Your task to perform on an android device: toggle notification dots Image 0: 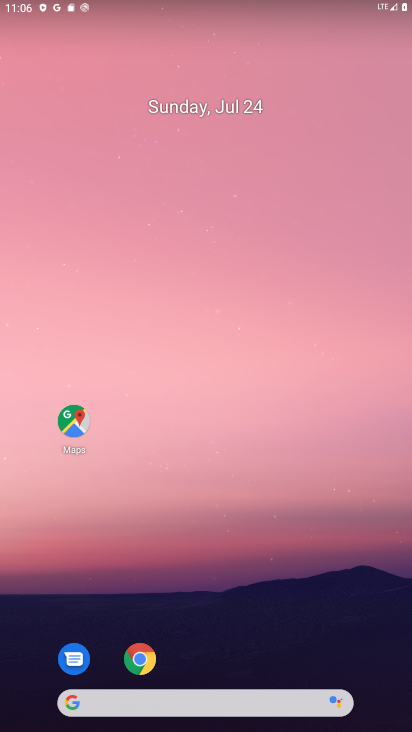
Step 0: drag from (232, 666) to (185, 115)
Your task to perform on an android device: toggle notification dots Image 1: 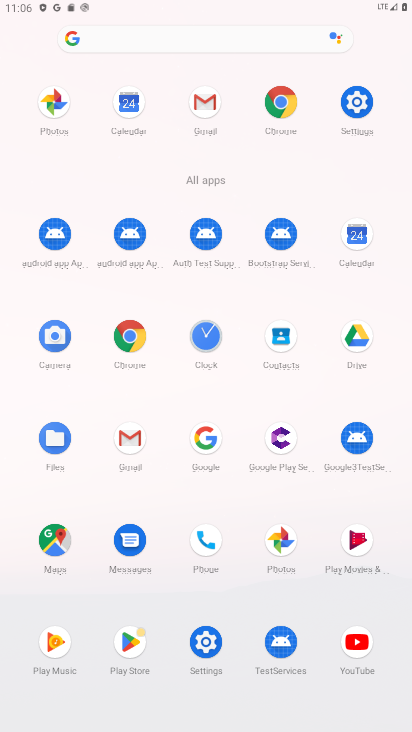
Step 1: click (364, 102)
Your task to perform on an android device: toggle notification dots Image 2: 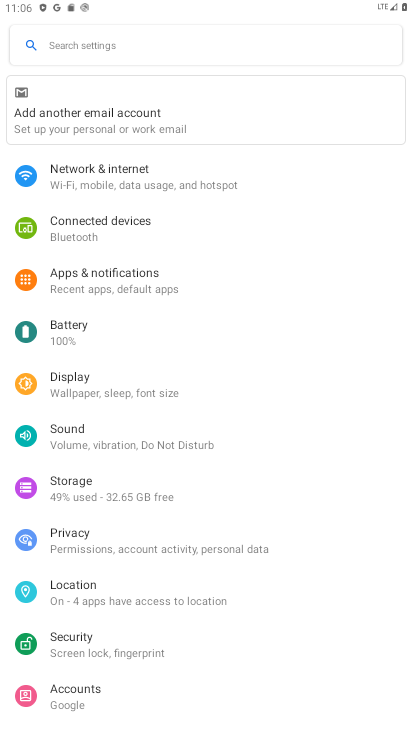
Step 2: click (126, 284)
Your task to perform on an android device: toggle notification dots Image 3: 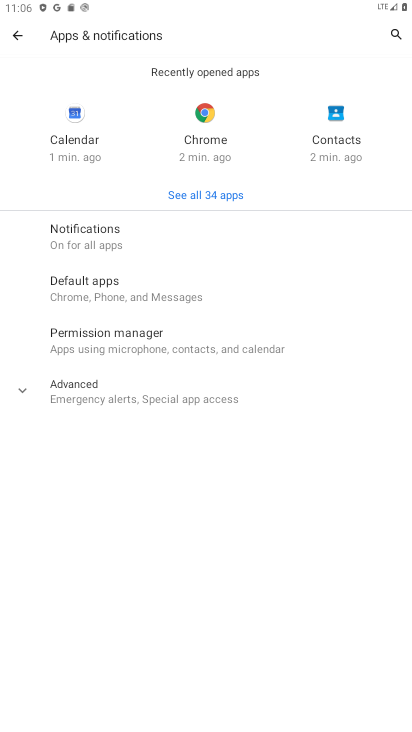
Step 3: click (175, 244)
Your task to perform on an android device: toggle notification dots Image 4: 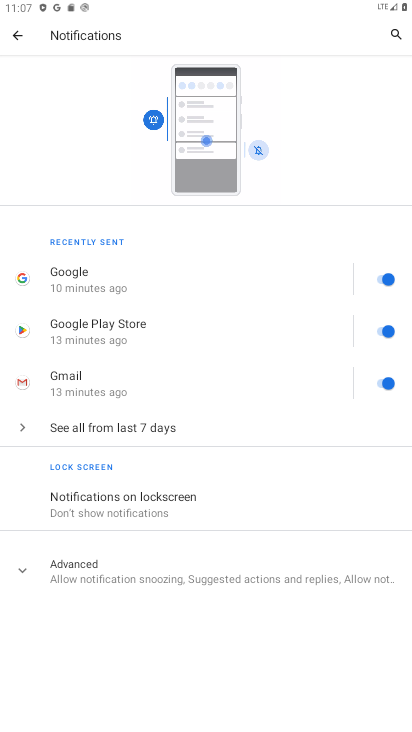
Step 4: click (295, 580)
Your task to perform on an android device: toggle notification dots Image 5: 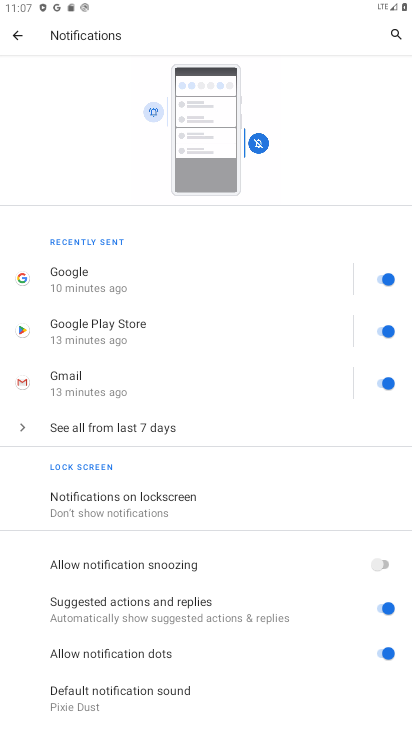
Step 5: click (382, 657)
Your task to perform on an android device: toggle notification dots Image 6: 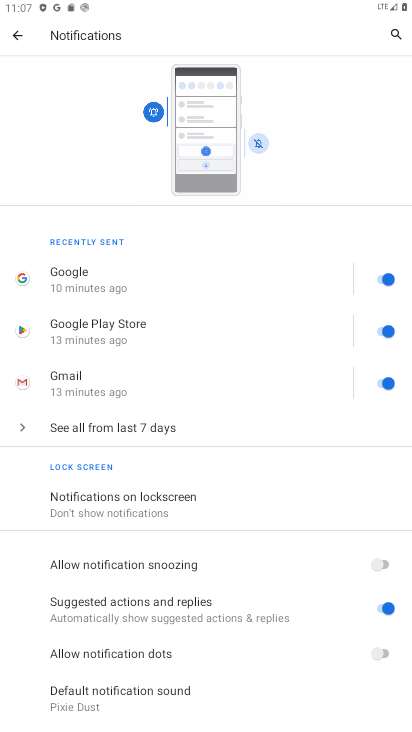
Step 6: task complete